Your task to perform on an android device: clear all cookies in the chrome app Image 0: 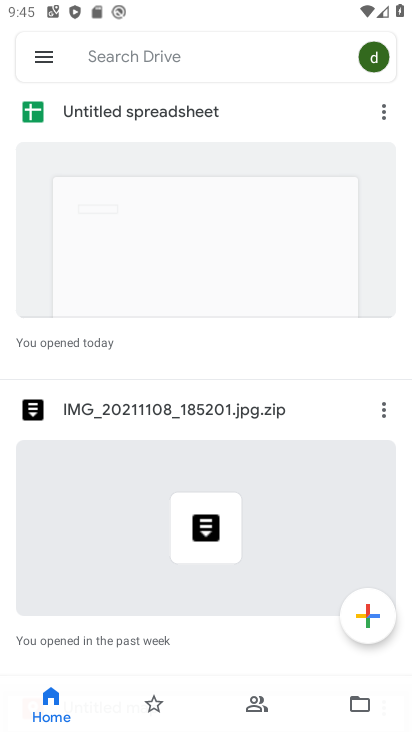
Step 0: press home button
Your task to perform on an android device: clear all cookies in the chrome app Image 1: 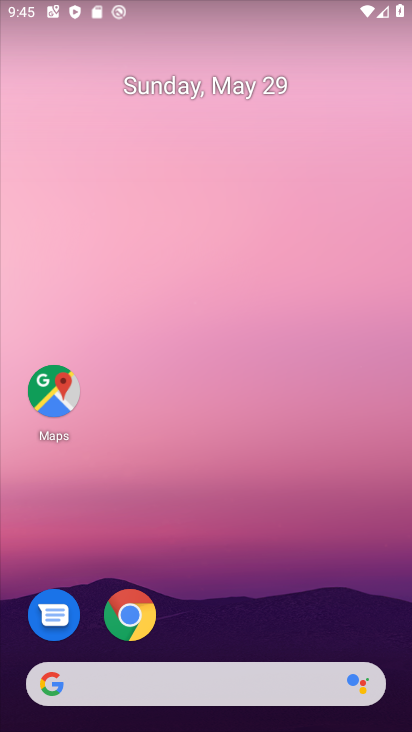
Step 1: drag from (239, 654) to (221, 14)
Your task to perform on an android device: clear all cookies in the chrome app Image 2: 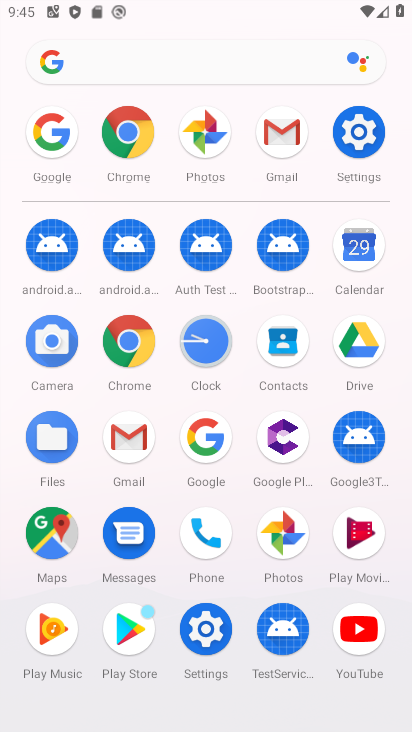
Step 2: click (140, 343)
Your task to perform on an android device: clear all cookies in the chrome app Image 3: 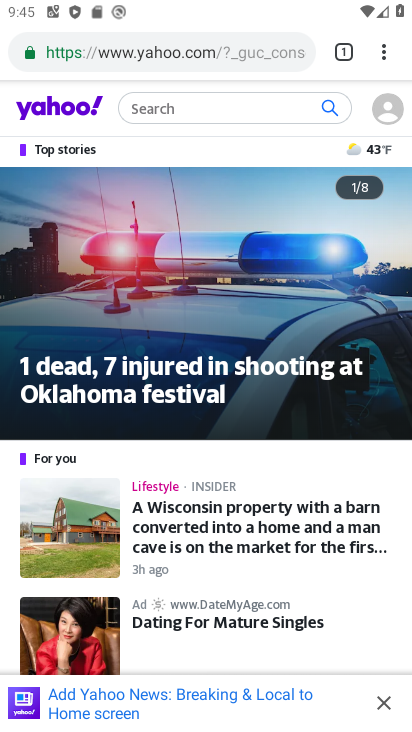
Step 3: click (381, 49)
Your task to perform on an android device: clear all cookies in the chrome app Image 4: 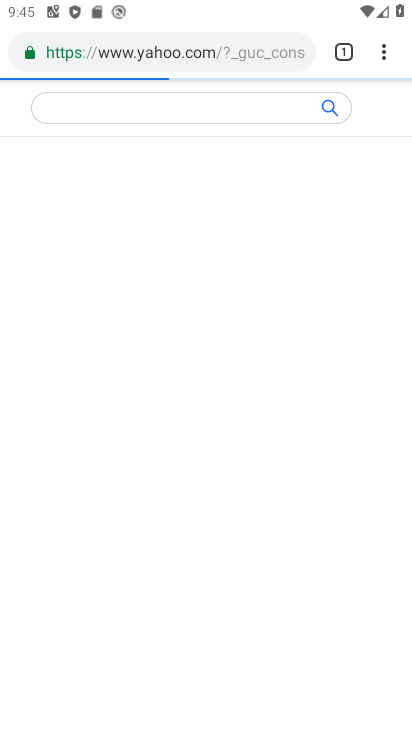
Step 4: drag from (379, 52) to (199, 301)
Your task to perform on an android device: clear all cookies in the chrome app Image 5: 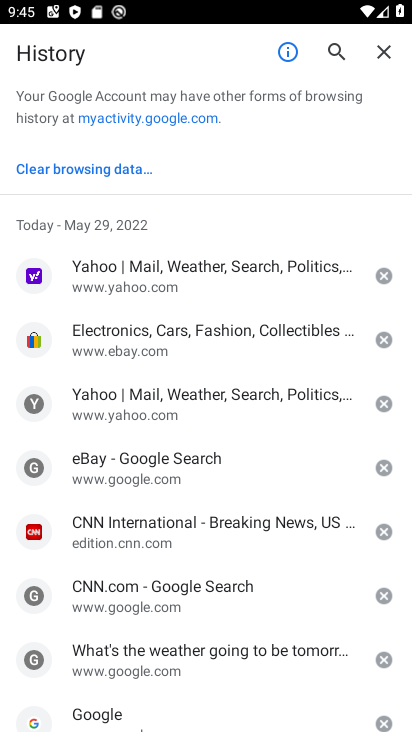
Step 5: click (74, 169)
Your task to perform on an android device: clear all cookies in the chrome app Image 6: 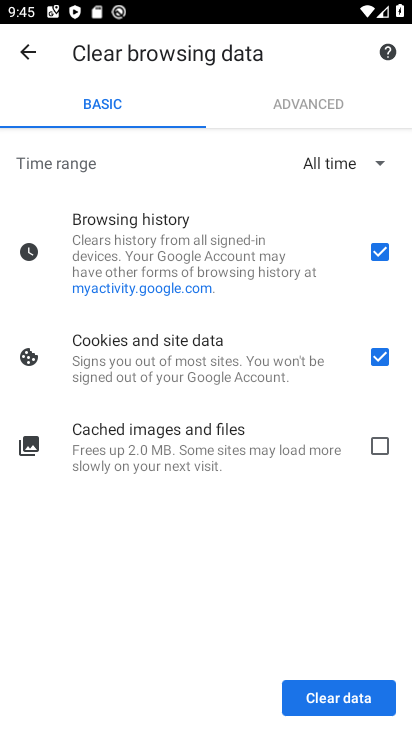
Step 6: click (358, 697)
Your task to perform on an android device: clear all cookies in the chrome app Image 7: 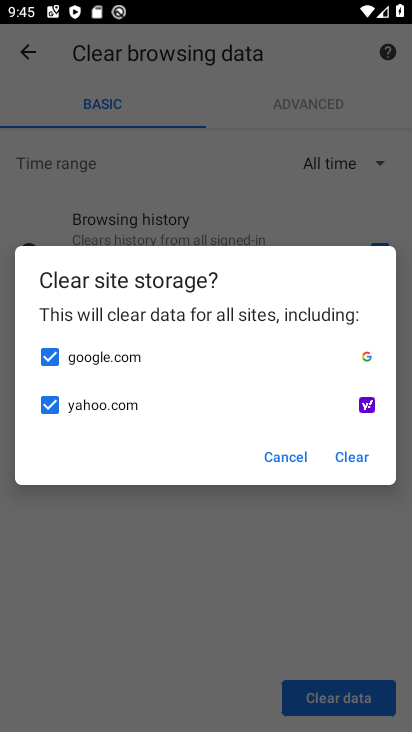
Step 7: click (363, 463)
Your task to perform on an android device: clear all cookies in the chrome app Image 8: 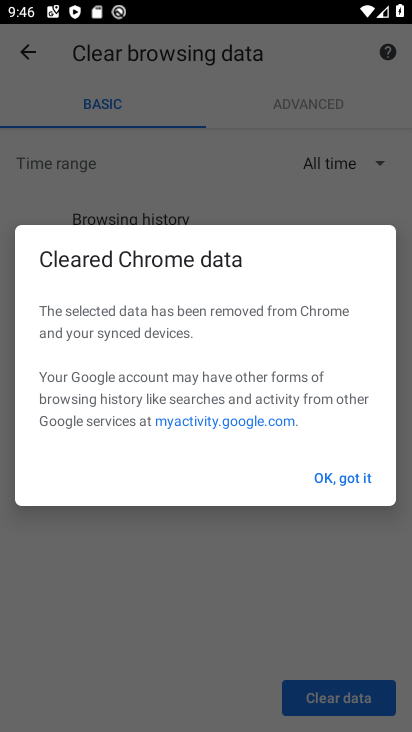
Step 8: click (350, 475)
Your task to perform on an android device: clear all cookies in the chrome app Image 9: 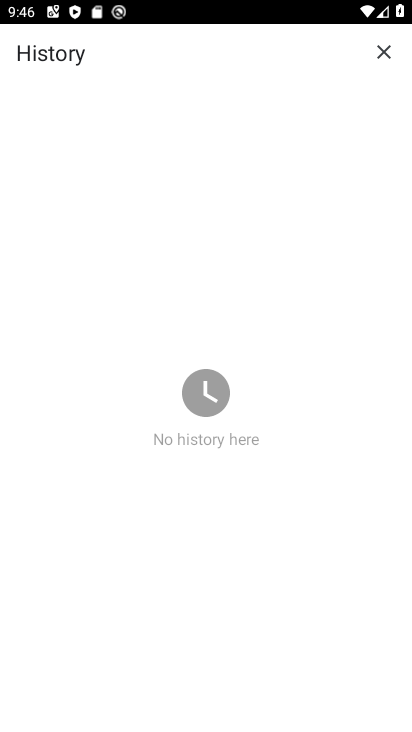
Step 9: task complete